Your task to perform on an android device: Open settings Image 0: 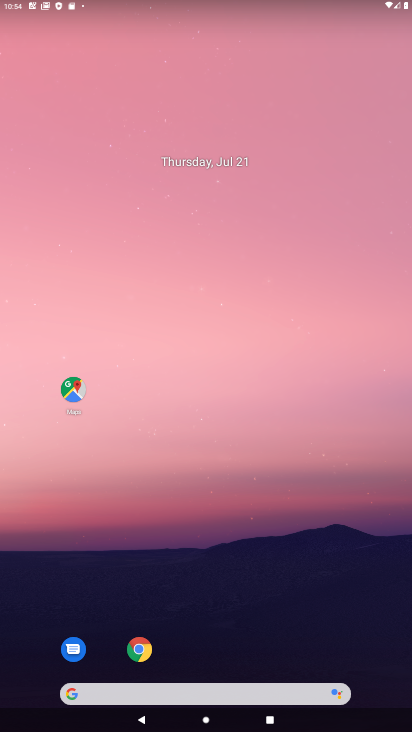
Step 0: drag from (258, 651) to (344, 27)
Your task to perform on an android device: Open settings Image 1: 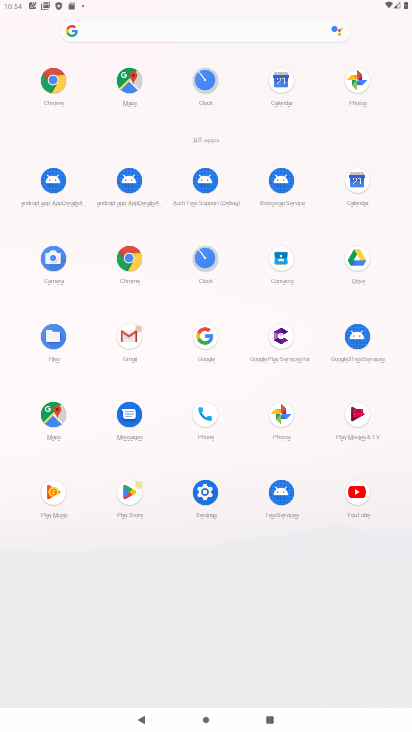
Step 1: click (204, 486)
Your task to perform on an android device: Open settings Image 2: 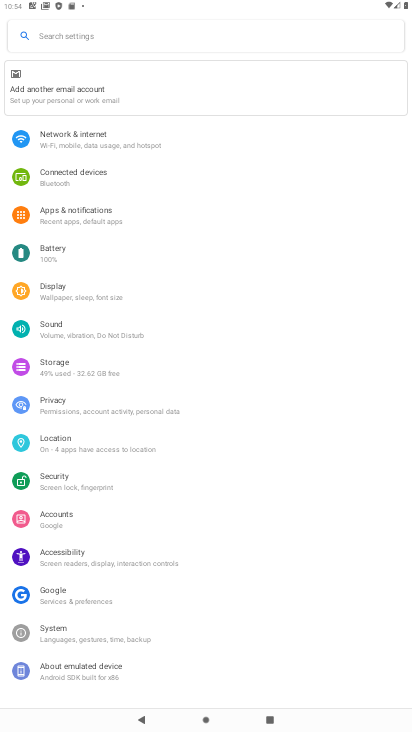
Step 2: task complete